Your task to perform on an android device: see creations saved in the google photos Image 0: 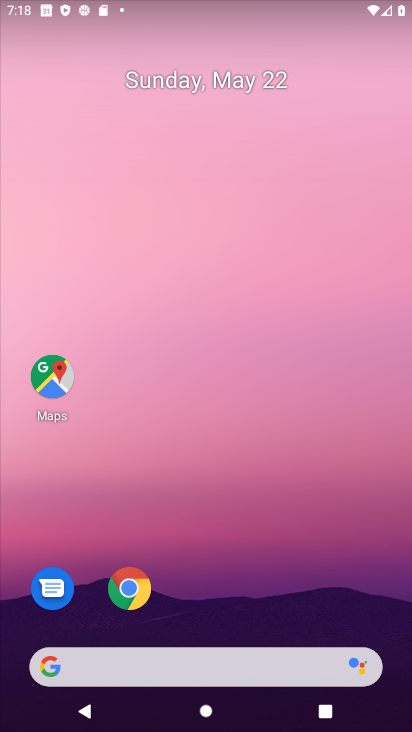
Step 0: drag from (208, 547) to (246, 28)
Your task to perform on an android device: see creations saved in the google photos Image 1: 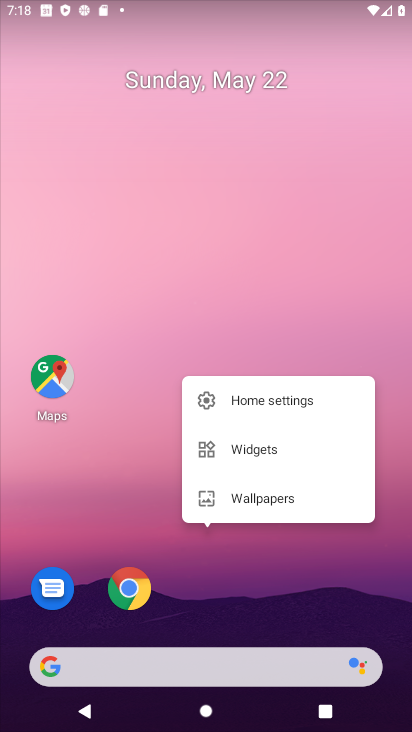
Step 1: click (165, 185)
Your task to perform on an android device: see creations saved in the google photos Image 2: 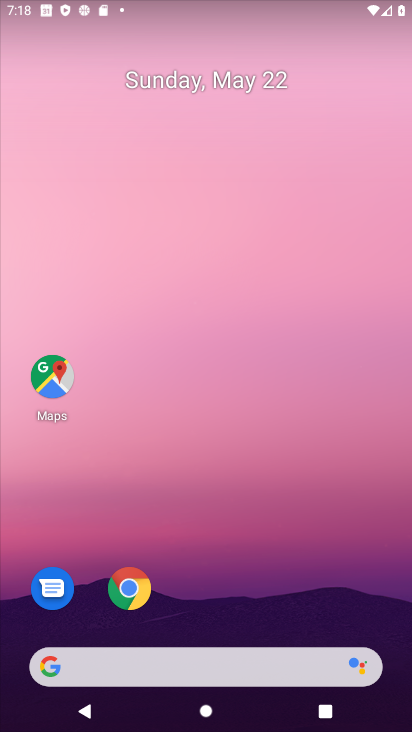
Step 2: drag from (260, 238) to (268, 170)
Your task to perform on an android device: see creations saved in the google photos Image 3: 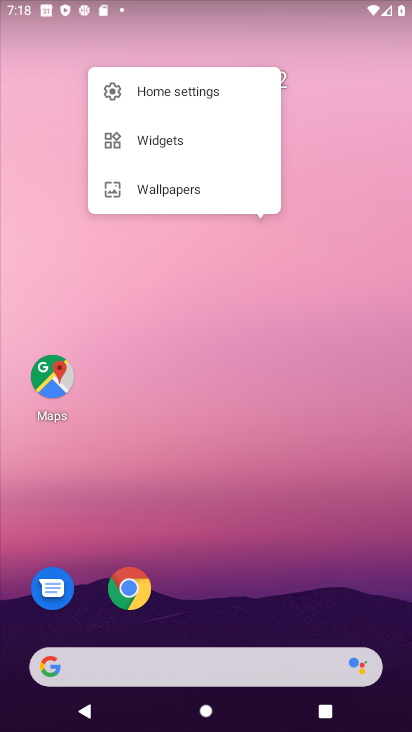
Step 3: drag from (219, 521) to (321, 125)
Your task to perform on an android device: see creations saved in the google photos Image 4: 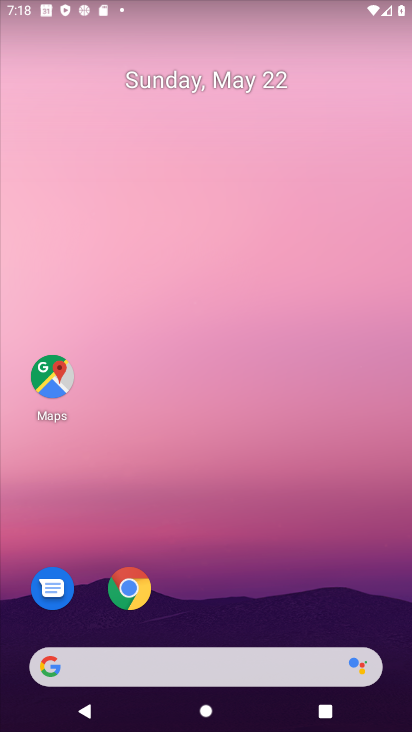
Step 4: drag from (145, 460) to (135, 54)
Your task to perform on an android device: see creations saved in the google photos Image 5: 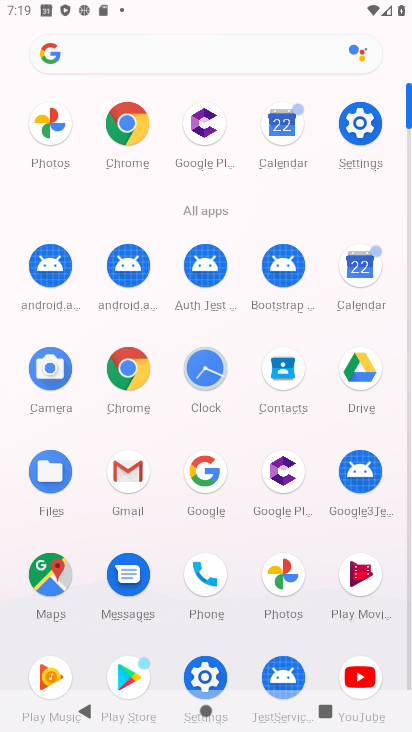
Step 5: click (46, 122)
Your task to perform on an android device: see creations saved in the google photos Image 6: 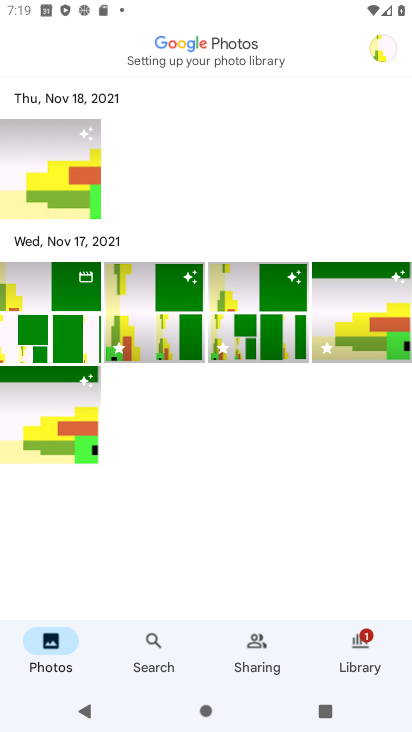
Step 6: click (152, 653)
Your task to perform on an android device: see creations saved in the google photos Image 7: 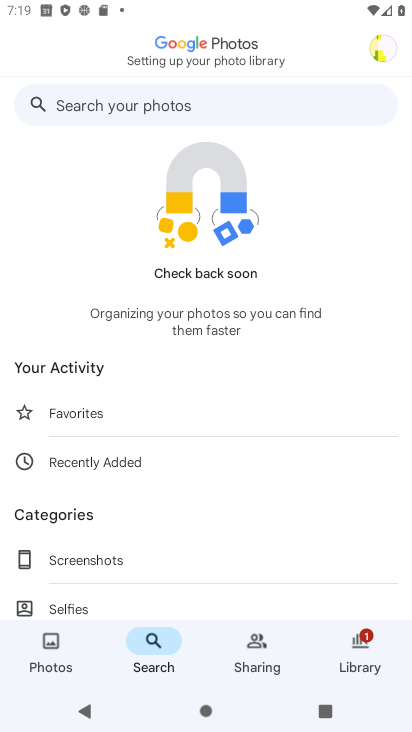
Step 7: click (149, 102)
Your task to perform on an android device: see creations saved in the google photos Image 8: 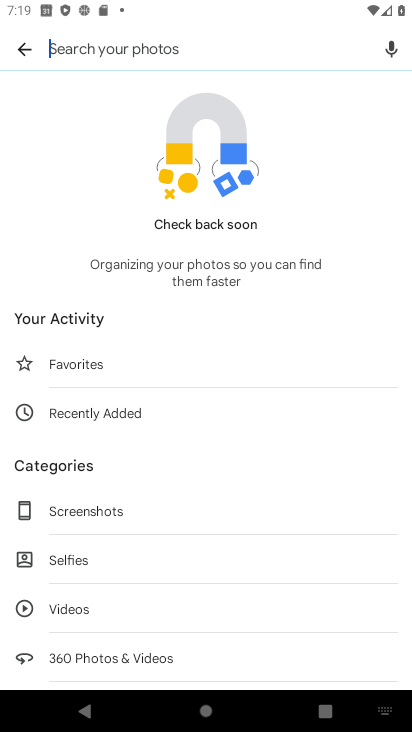
Step 8: type "creation"
Your task to perform on an android device: see creations saved in the google photos Image 9: 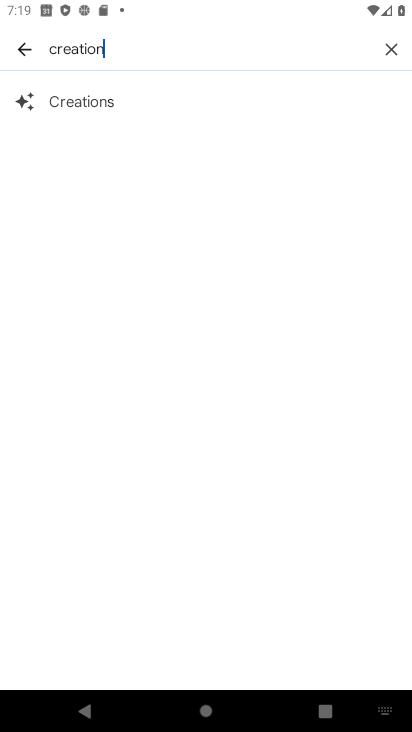
Step 9: click (70, 94)
Your task to perform on an android device: see creations saved in the google photos Image 10: 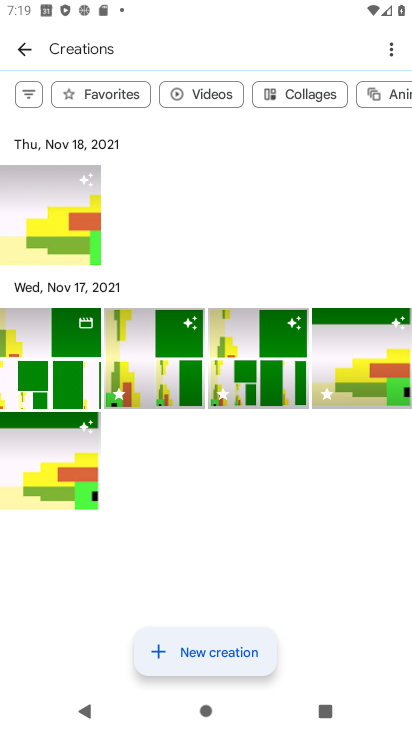
Step 10: task complete